Your task to perform on an android device: visit the assistant section in the google photos Image 0: 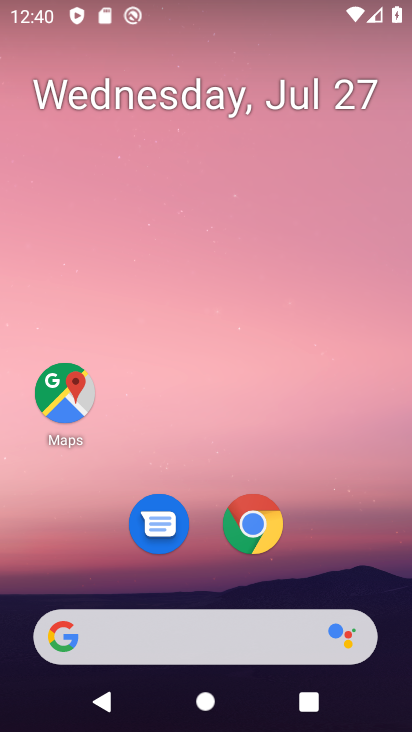
Step 0: drag from (326, 545) to (339, 17)
Your task to perform on an android device: visit the assistant section in the google photos Image 1: 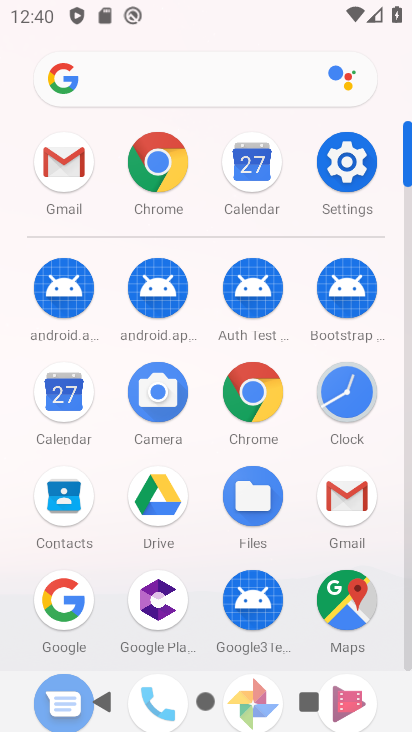
Step 1: drag from (301, 528) to (325, 197)
Your task to perform on an android device: visit the assistant section in the google photos Image 2: 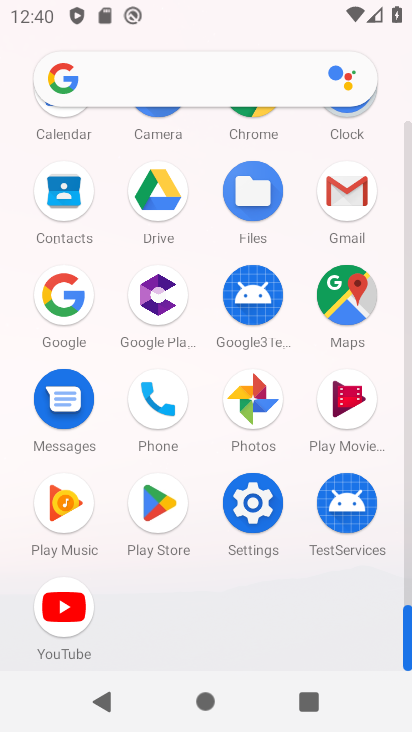
Step 2: click (258, 402)
Your task to perform on an android device: visit the assistant section in the google photos Image 3: 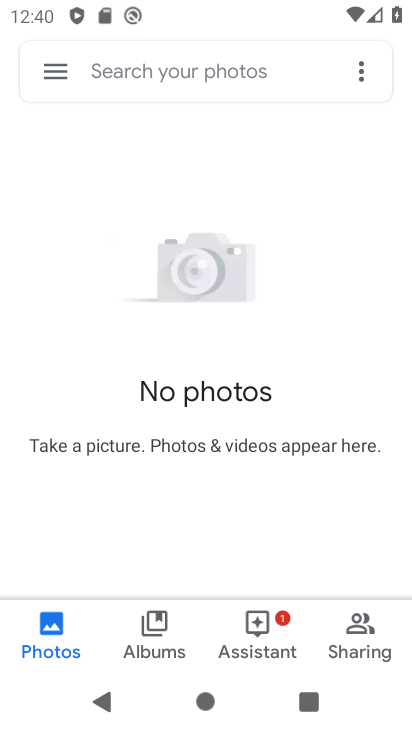
Step 3: click (256, 636)
Your task to perform on an android device: visit the assistant section in the google photos Image 4: 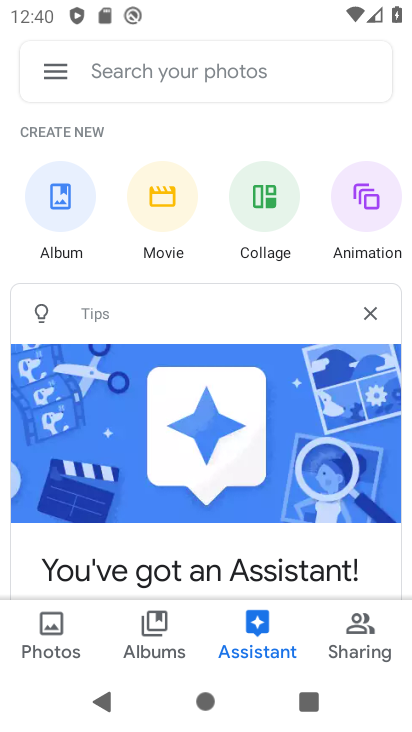
Step 4: task complete